Your task to perform on an android device: turn on sleep mode Image 0: 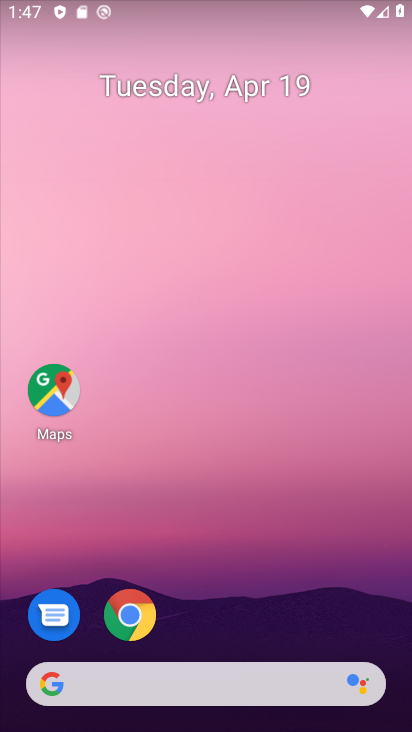
Step 0: click (344, 104)
Your task to perform on an android device: turn on sleep mode Image 1: 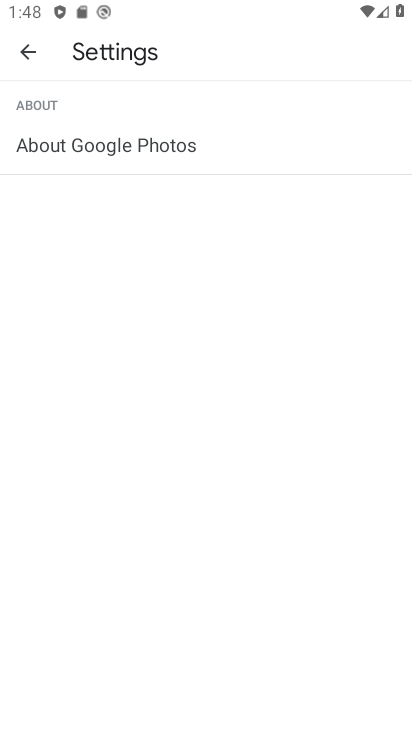
Step 1: drag from (193, 394) to (229, 134)
Your task to perform on an android device: turn on sleep mode Image 2: 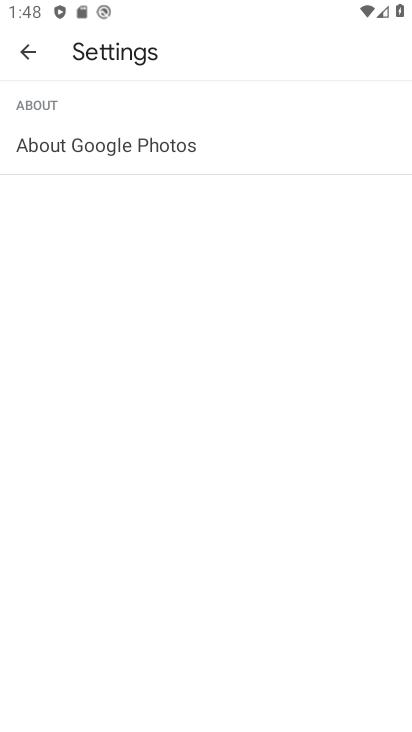
Step 2: click (25, 60)
Your task to perform on an android device: turn on sleep mode Image 3: 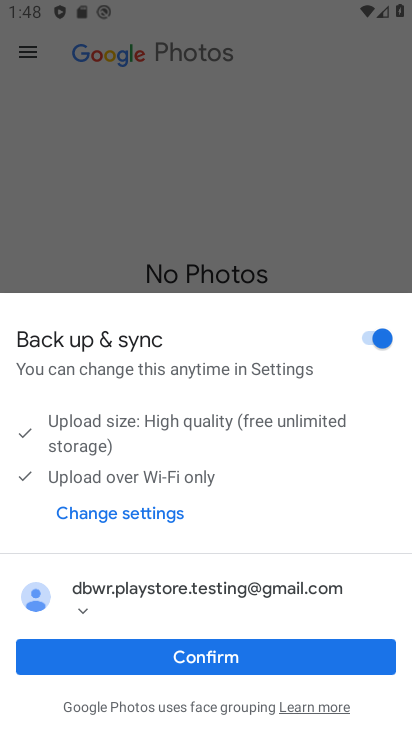
Step 3: drag from (225, 526) to (299, 192)
Your task to perform on an android device: turn on sleep mode Image 4: 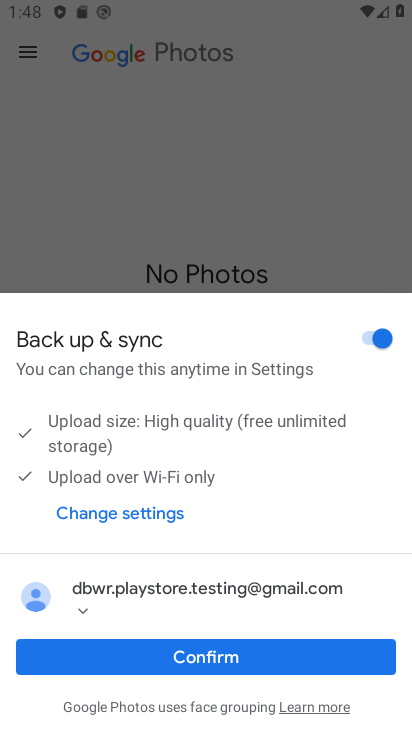
Step 4: drag from (194, 550) to (247, 327)
Your task to perform on an android device: turn on sleep mode Image 5: 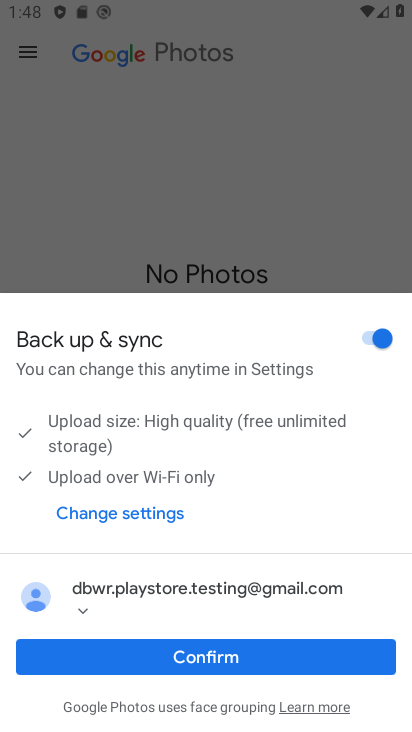
Step 5: press home button
Your task to perform on an android device: turn on sleep mode Image 6: 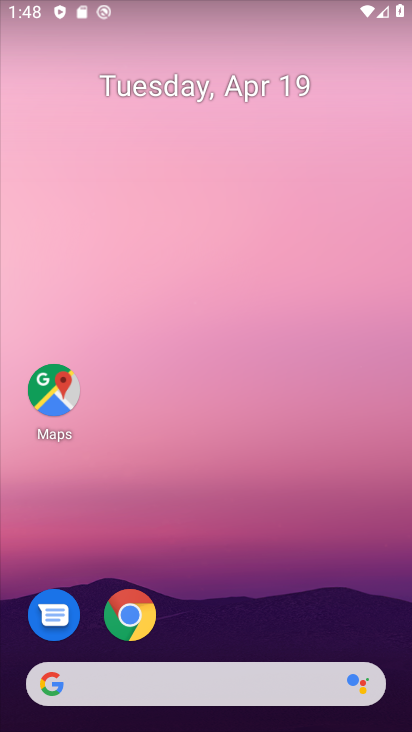
Step 6: drag from (207, 636) to (260, 0)
Your task to perform on an android device: turn on sleep mode Image 7: 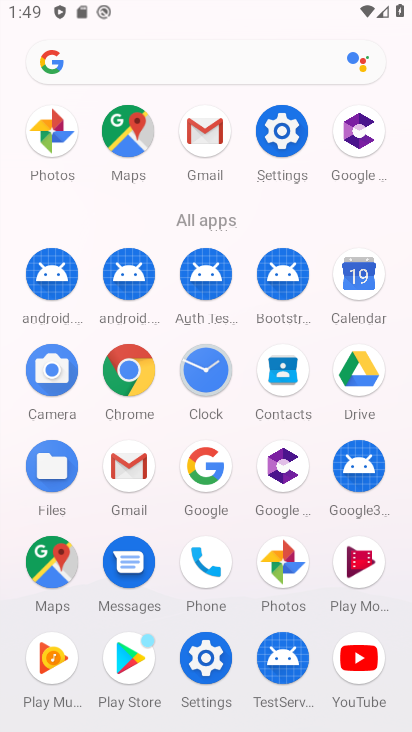
Step 7: click (287, 126)
Your task to perform on an android device: turn on sleep mode Image 8: 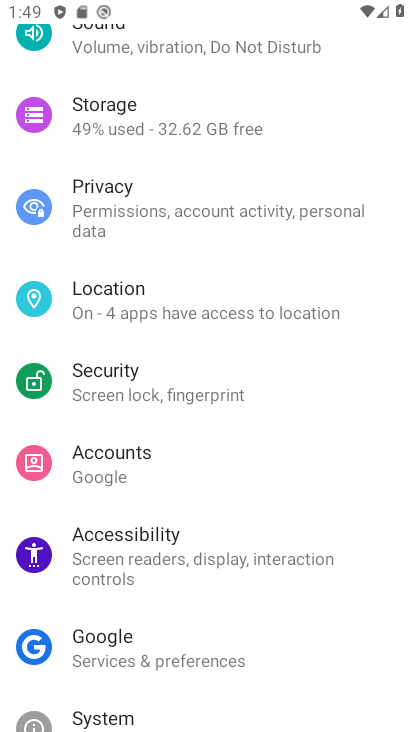
Step 8: drag from (231, 154) to (330, 688)
Your task to perform on an android device: turn on sleep mode Image 9: 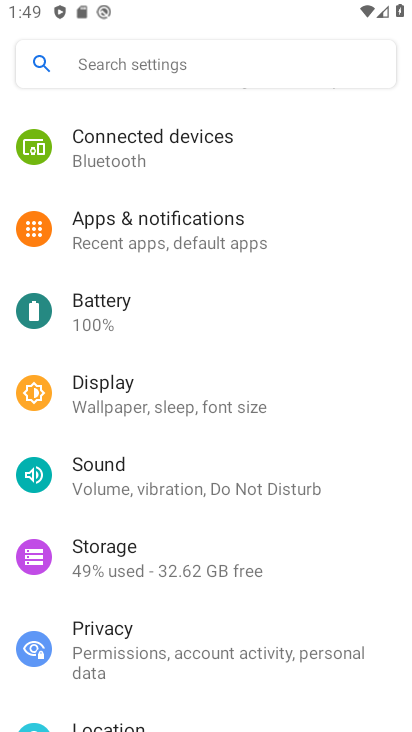
Step 9: drag from (187, 205) to (253, 659)
Your task to perform on an android device: turn on sleep mode Image 10: 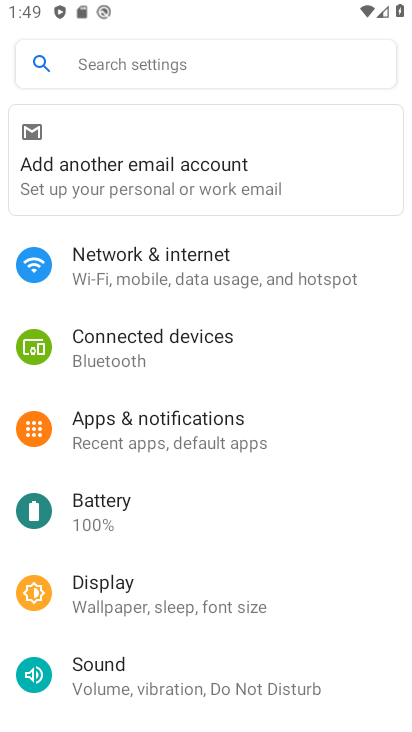
Step 10: drag from (183, 267) to (307, 637)
Your task to perform on an android device: turn on sleep mode Image 11: 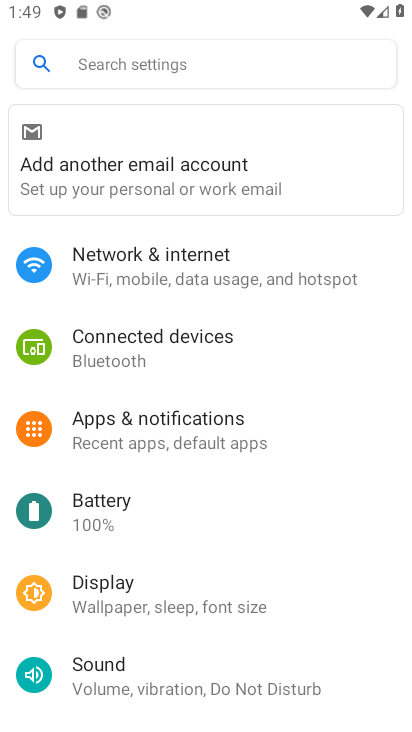
Step 11: drag from (229, 615) to (275, 109)
Your task to perform on an android device: turn on sleep mode Image 12: 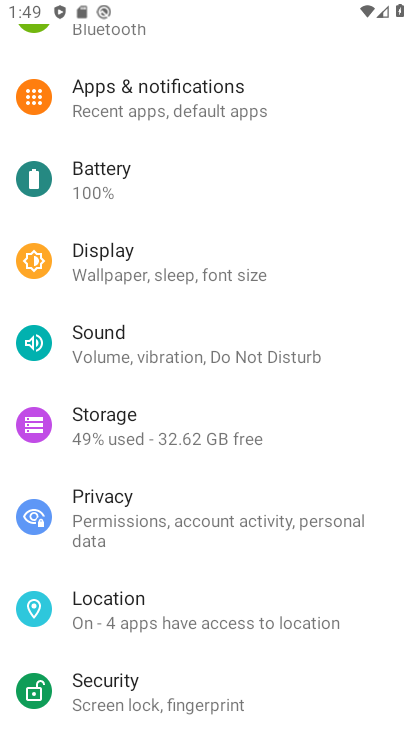
Step 12: drag from (169, 548) to (209, 258)
Your task to perform on an android device: turn on sleep mode Image 13: 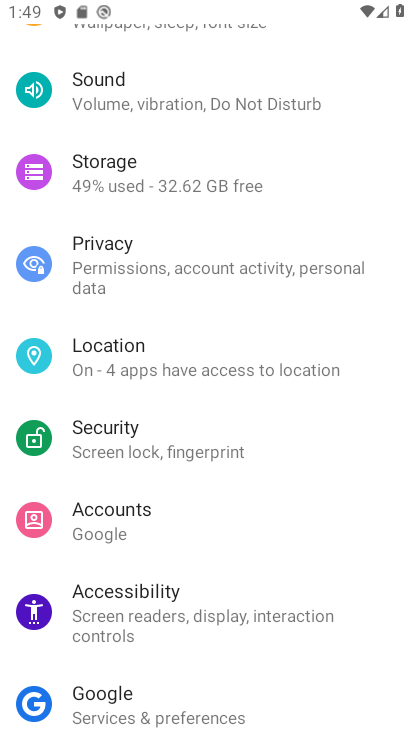
Step 13: drag from (235, 645) to (269, 271)
Your task to perform on an android device: turn on sleep mode Image 14: 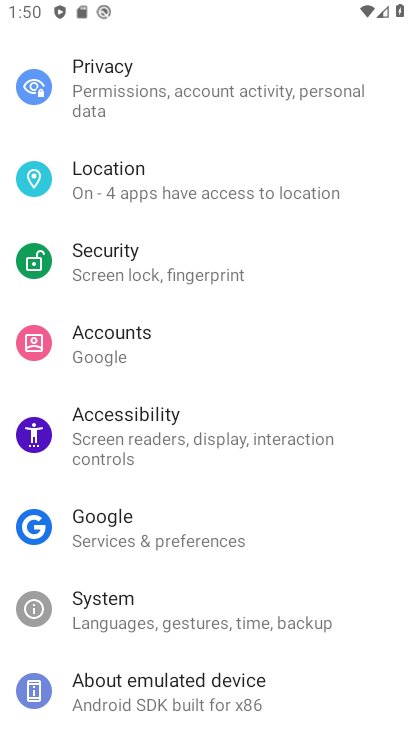
Step 14: drag from (258, 183) to (296, 721)
Your task to perform on an android device: turn on sleep mode Image 15: 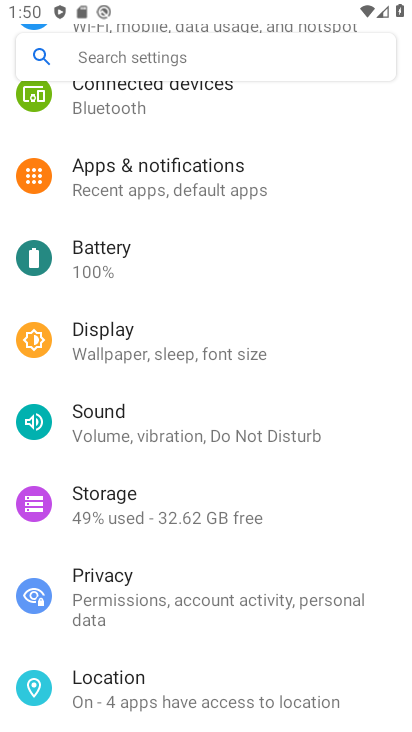
Step 15: click (109, 356)
Your task to perform on an android device: turn on sleep mode Image 16: 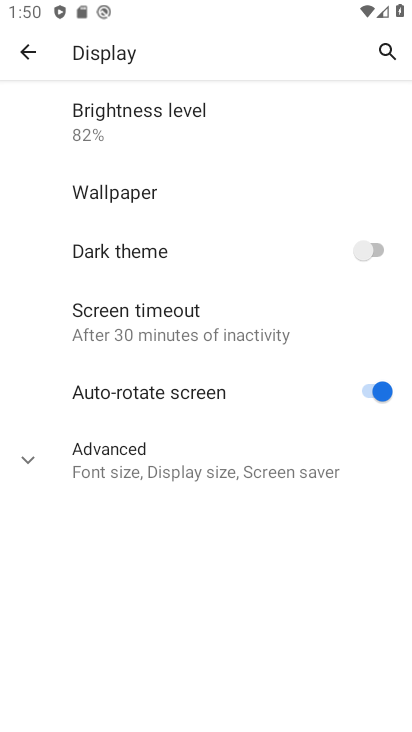
Step 16: click (177, 307)
Your task to perform on an android device: turn on sleep mode Image 17: 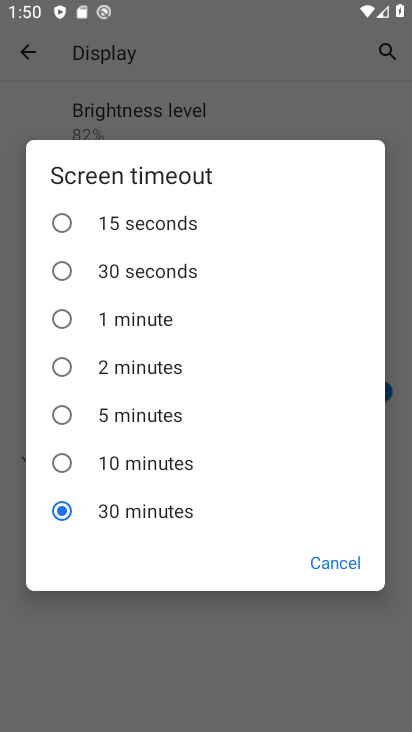
Step 17: click (62, 367)
Your task to perform on an android device: turn on sleep mode Image 18: 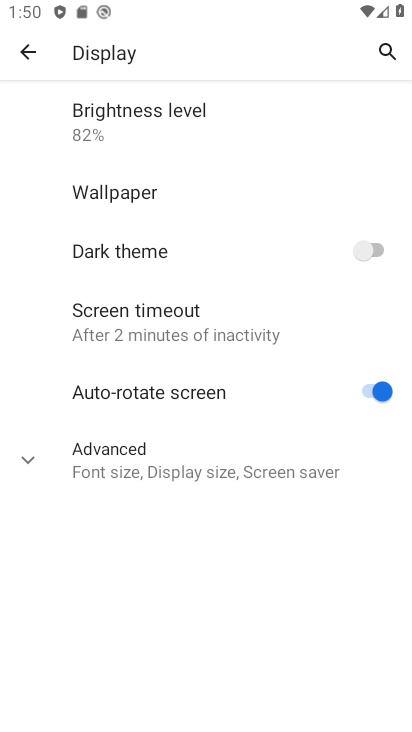
Step 18: task complete